Your task to perform on an android device: choose inbox layout in the gmail app Image 0: 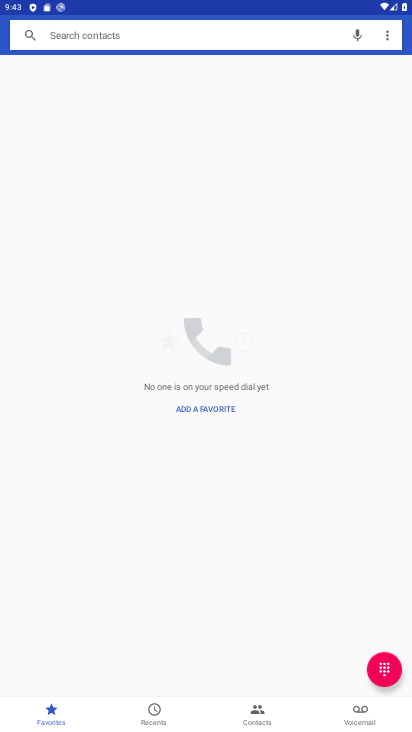
Step 0: press home button
Your task to perform on an android device: choose inbox layout in the gmail app Image 1: 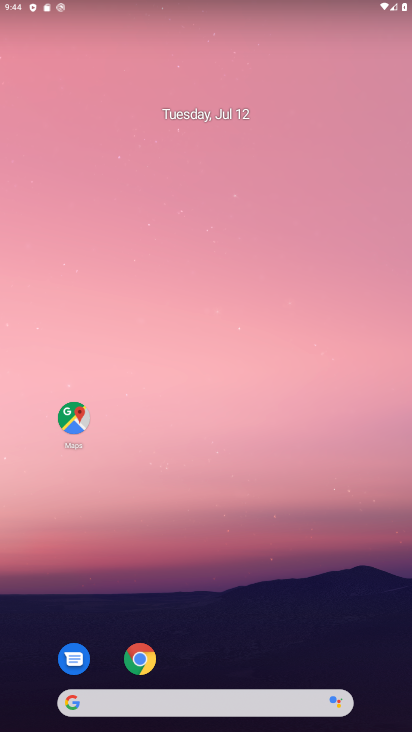
Step 1: drag from (375, 666) to (308, 78)
Your task to perform on an android device: choose inbox layout in the gmail app Image 2: 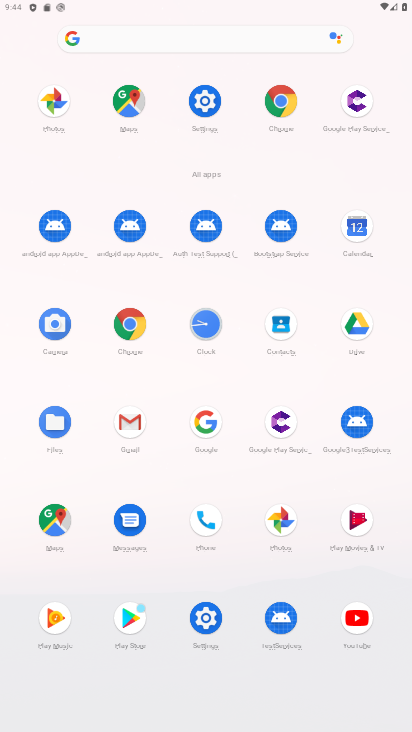
Step 2: click (124, 428)
Your task to perform on an android device: choose inbox layout in the gmail app Image 3: 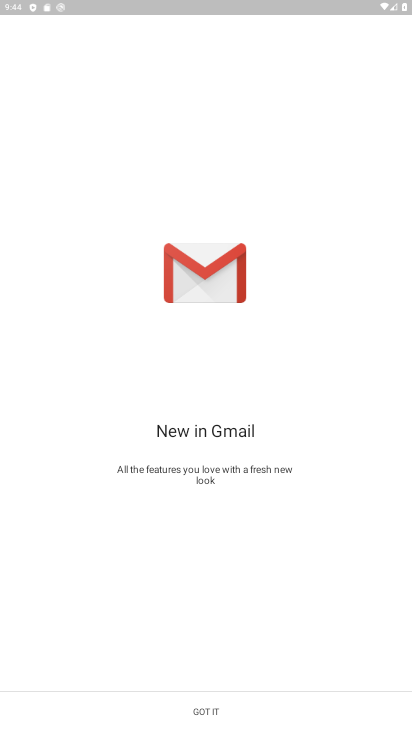
Step 3: click (206, 711)
Your task to perform on an android device: choose inbox layout in the gmail app Image 4: 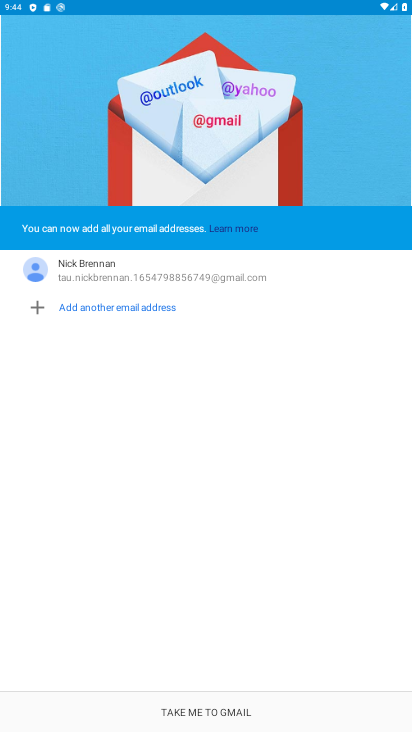
Step 4: click (206, 711)
Your task to perform on an android device: choose inbox layout in the gmail app Image 5: 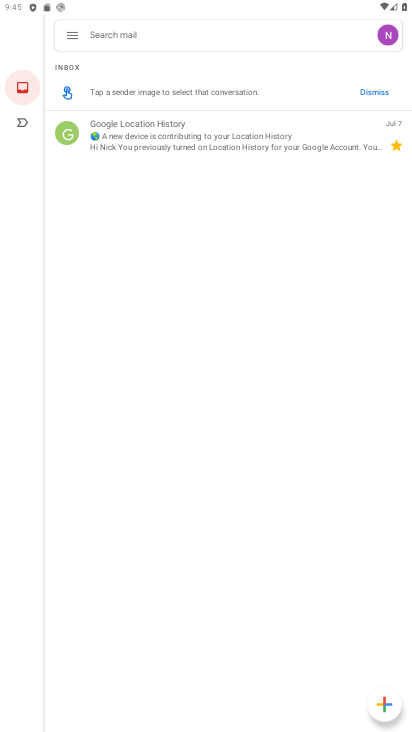
Step 5: click (66, 35)
Your task to perform on an android device: choose inbox layout in the gmail app Image 6: 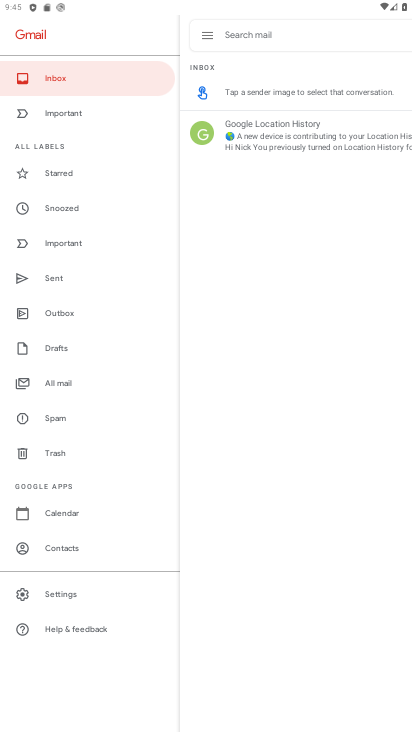
Step 6: click (48, 586)
Your task to perform on an android device: choose inbox layout in the gmail app Image 7: 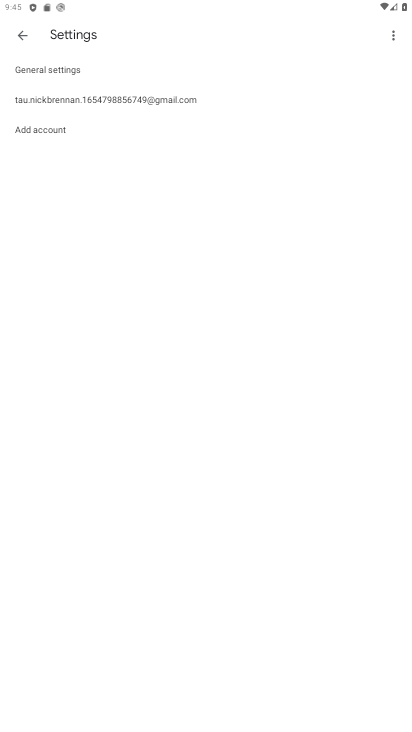
Step 7: click (46, 98)
Your task to perform on an android device: choose inbox layout in the gmail app Image 8: 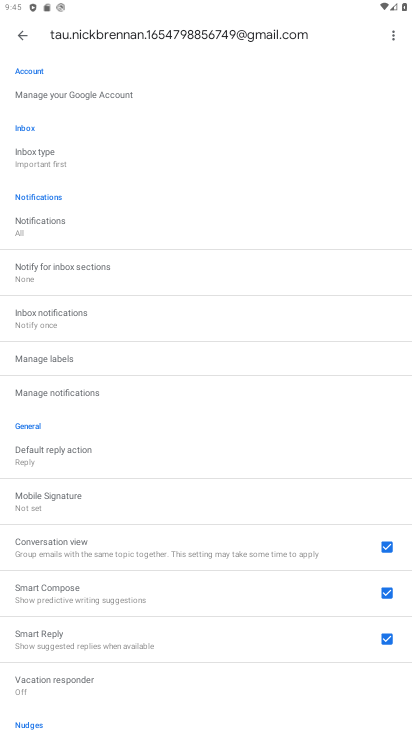
Step 8: click (44, 146)
Your task to perform on an android device: choose inbox layout in the gmail app Image 9: 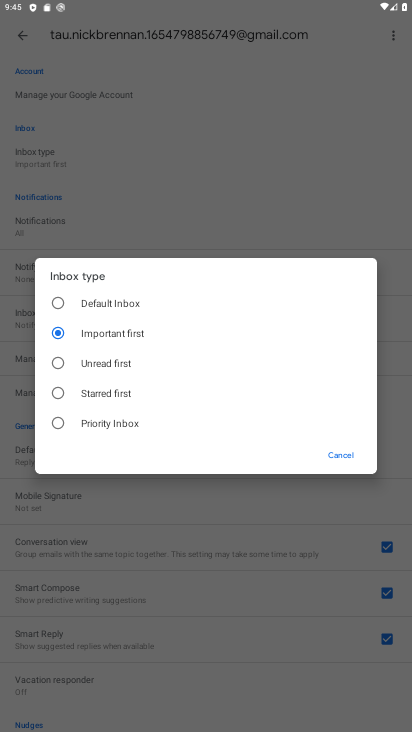
Step 9: click (81, 377)
Your task to perform on an android device: choose inbox layout in the gmail app Image 10: 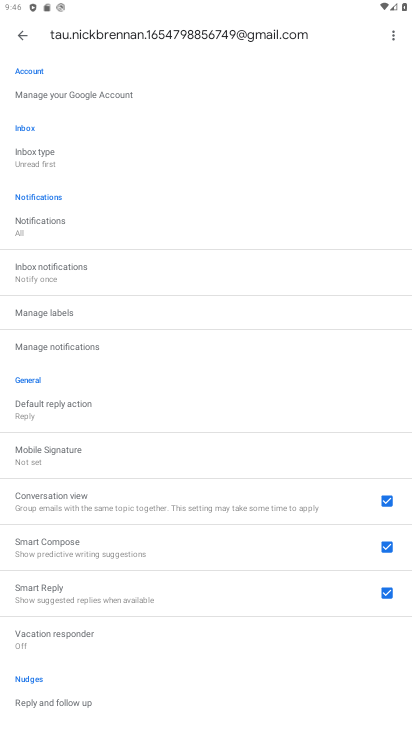
Step 10: task complete